Your task to perform on an android device: turn off priority inbox in the gmail app Image 0: 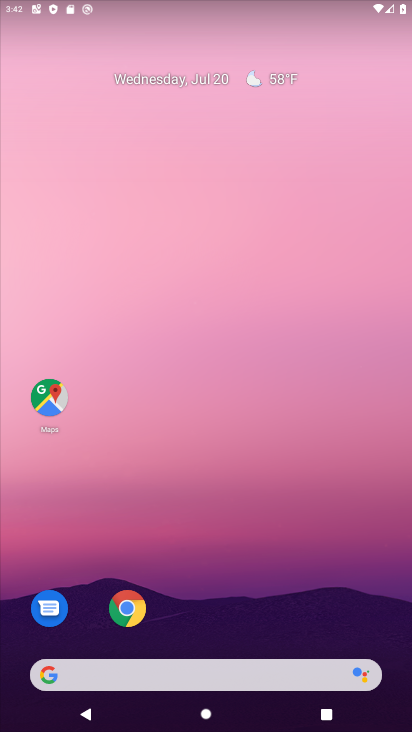
Step 0: drag from (255, 601) to (274, 239)
Your task to perform on an android device: turn off priority inbox in the gmail app Image 1: 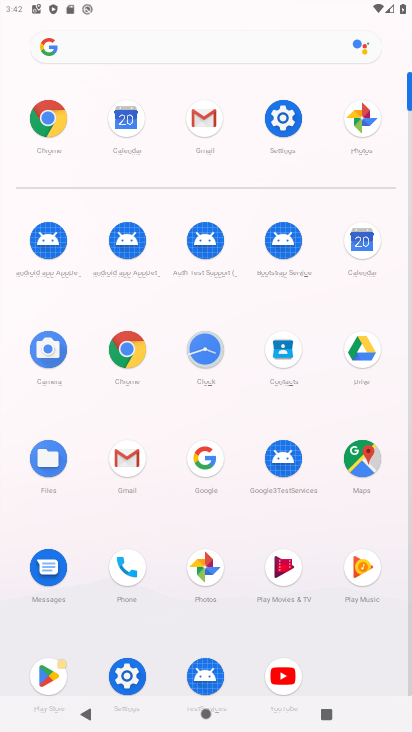
Step 1: click (196, 131)
Your task to perform on an android device: turn off priority inbox in the gmail app Image 2: 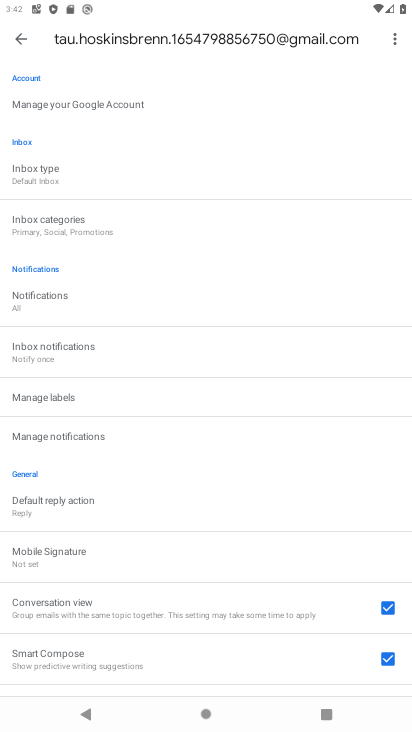
Step 2: task complete